Your task to perform on an android device: remove spam from my inbox in the gmail app Image 0: 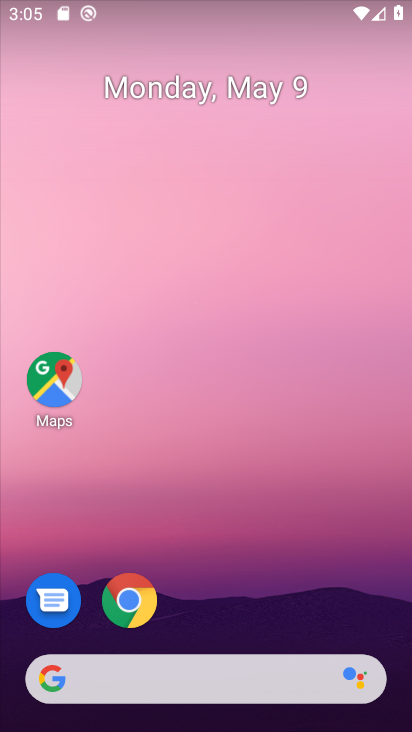
Step 0: drag from (228, 597) to (211, 254)
Your task to perform on an android device: remove spam from my inbox in the gmail app Image 1: 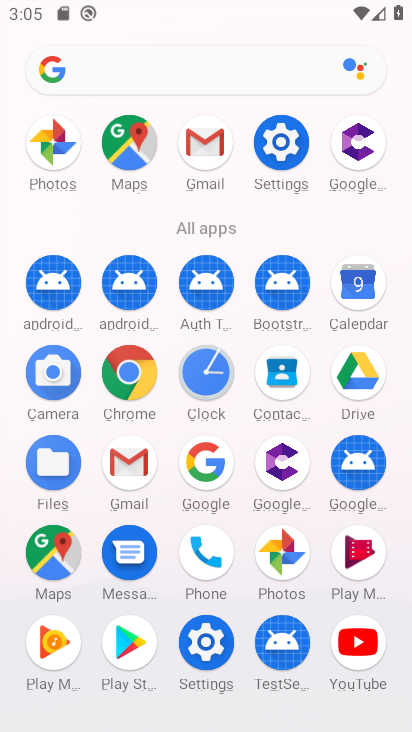
Step 1: click (143, 468)
Your task to perform on an android device: remove spam from my inbox in the gmail app Image 2: 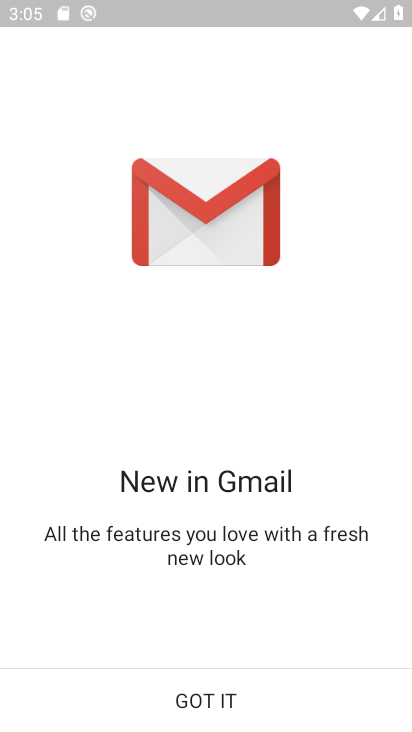
Step 2: click (220, 700)
Your task to perform on an android device: remove spam from my inbox in the gmail app Image 3: 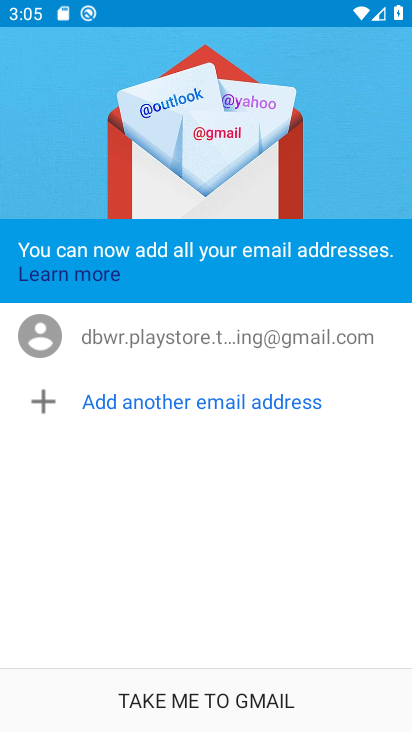
Step 3: click (226, 698)
Your task to perform on an android device: remove spam from my inbox in the gmail app Image 4: 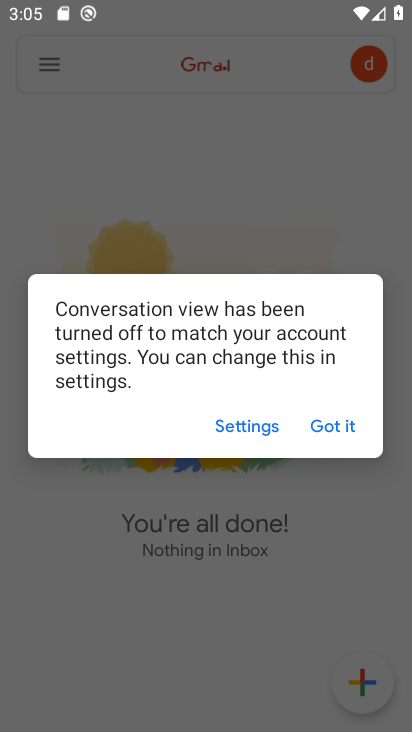
Step 4: click (328, 410)
Your task to perform on an android device: remove spam from my inbox in the gmail app Image 5: 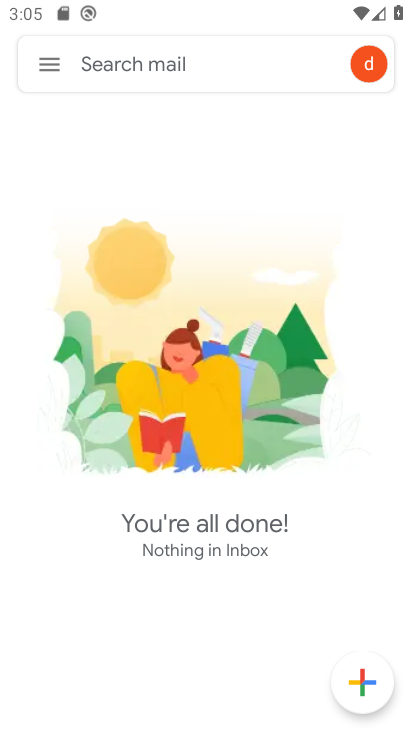
Step 5: click (58, 72)
Your task to perform on an android device: remove spam from my inbox in the gmail app Image 6: 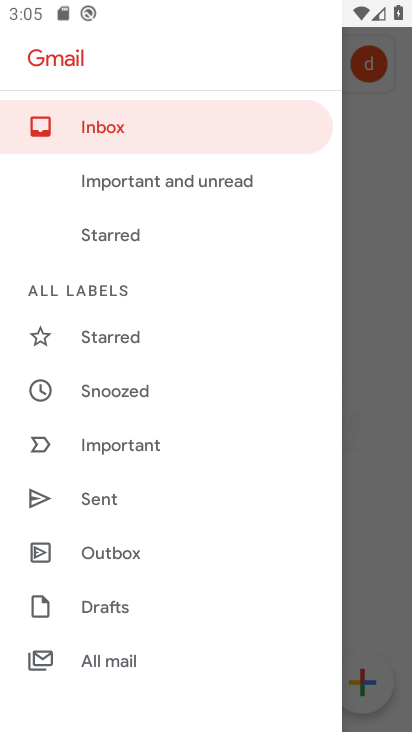
Step 6: drag from (130, 460) to (145, 254)
Your task to perform on an android device: remove spam from my inbox in the gmail app Image 7: 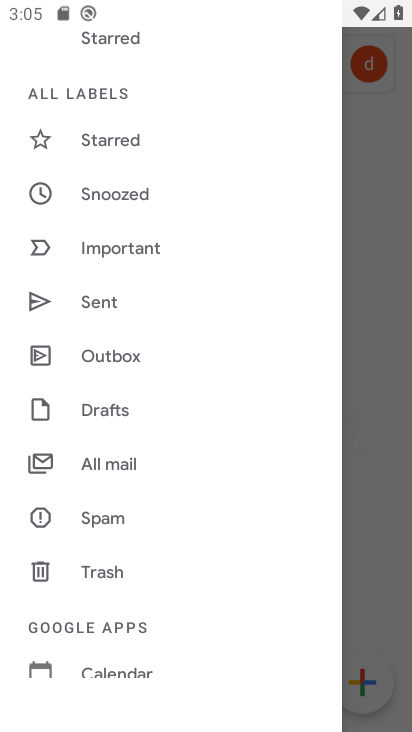
Step 7: click (122, 528)
Your task to perform on an android device: remove spam from my inbox in the gmail app Image 8: 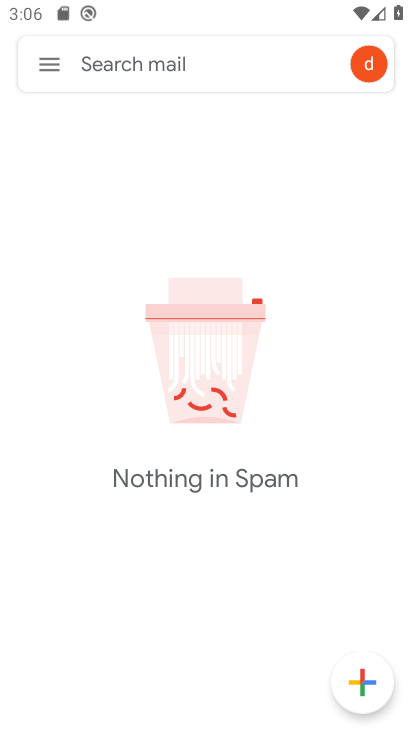
Step 8: task complete